Your task to perform on an android device: Is it going to rain tomorrow? Image 0: 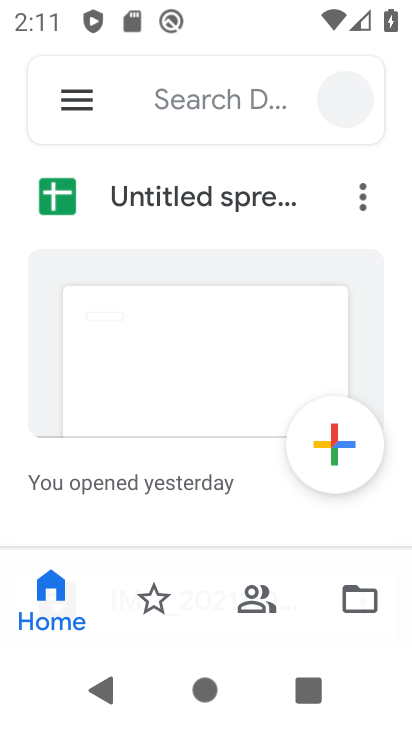
Step 0: drag from (377, 522) to (369, 243)
Your task to perform on an android device: Is it going to rain tomorrow? Image 1: 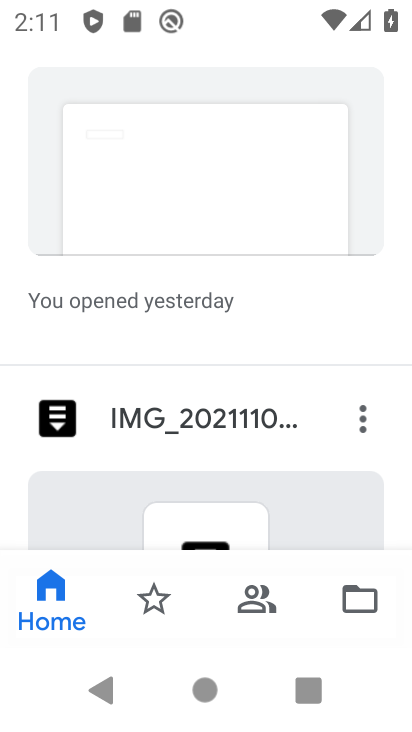
Step 1: press home button
Your task to perform on an android device: Is it going to rain tomorrow? Image 2: 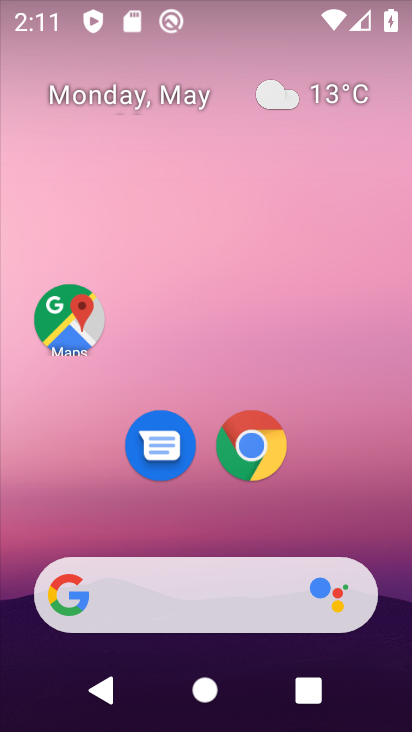
Step 2: click (345, 98)
Your task to perform on an android device: Is it going to rain tomorrow? Image 3: 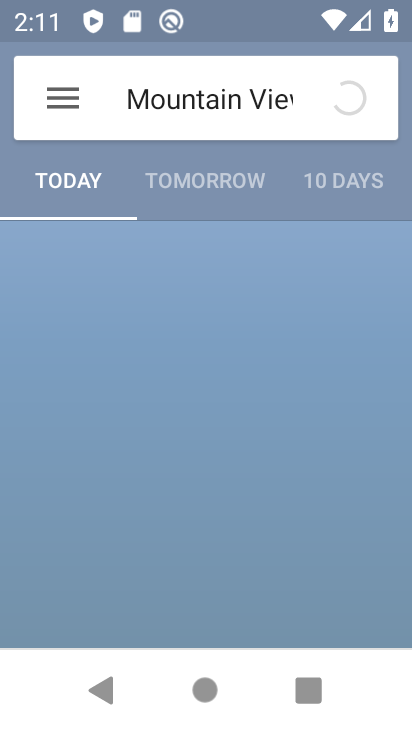
Step 3: click (208, 168)
Your task to perform on an android device: Is it going to rain tomorrow? Image 4: 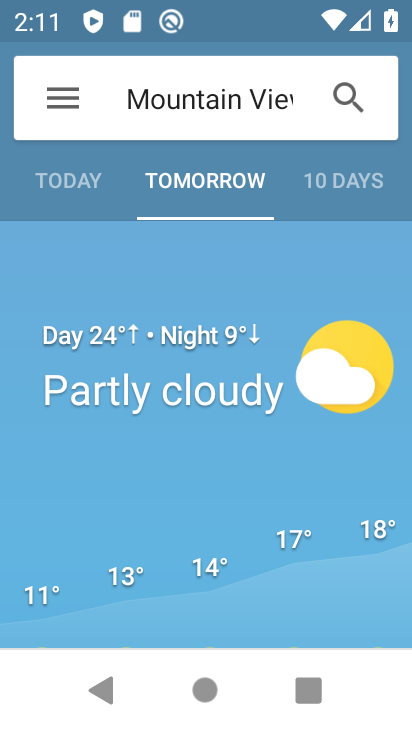
Step 4: task complete